Your task to perform on an android device: Open my contact list Image 0: 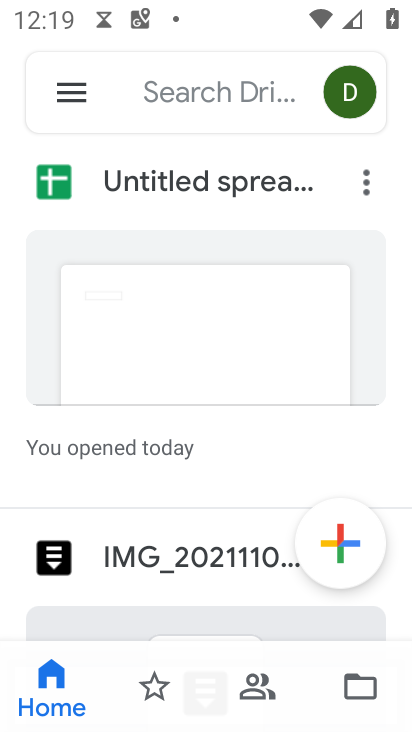
Step 0: press home button
Your task to perform on an android device: Open my contact list Image 1: 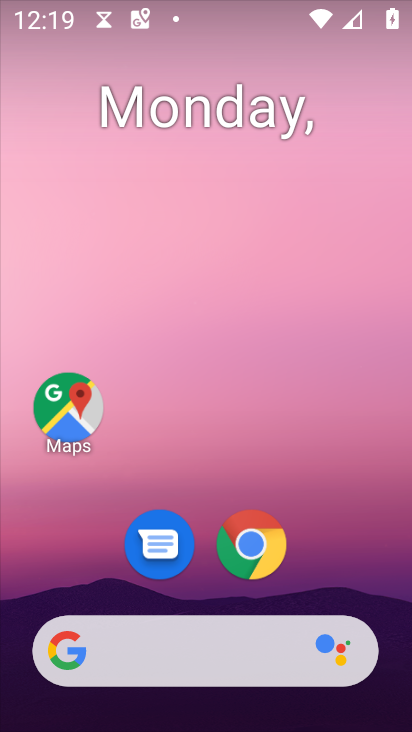
Step 1: drag from (336, 593) to (313, 253)
Your task to perform on an android device: Open my contact list Image 2: 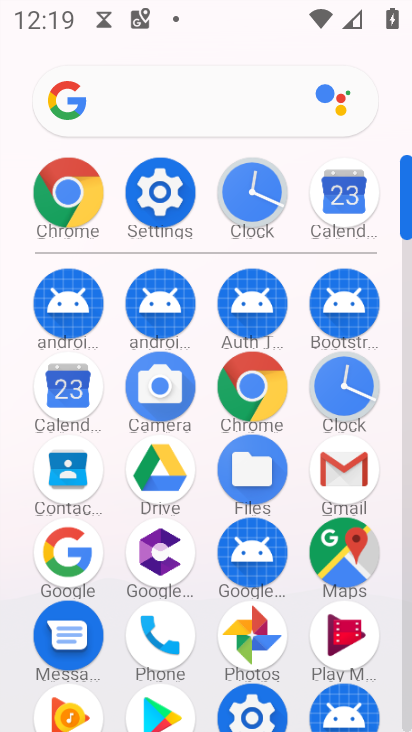
Step 2: click (159, 635)
Your task to perform on an android device: Open my contact list Image 3: 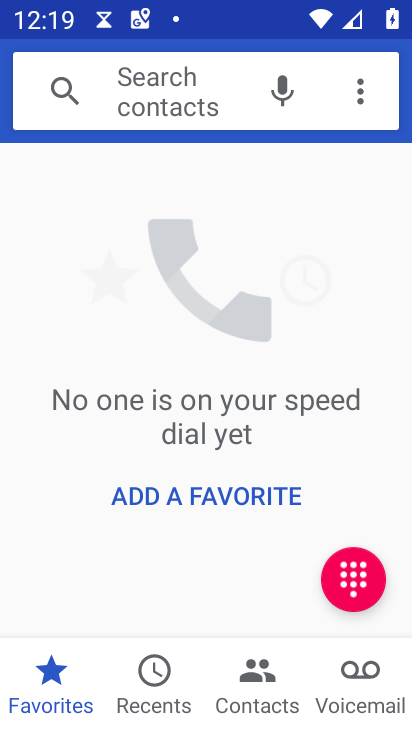
Step 3: click (235, 677)
Your task to perform on an android device: Open my contact list Image 4: 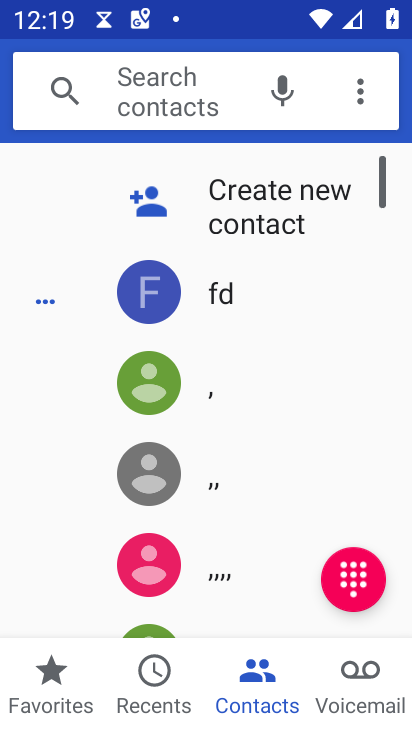
Step 4: task complete